Your task to perform on an android device: Play the last video I watched on Youtube Image 0: 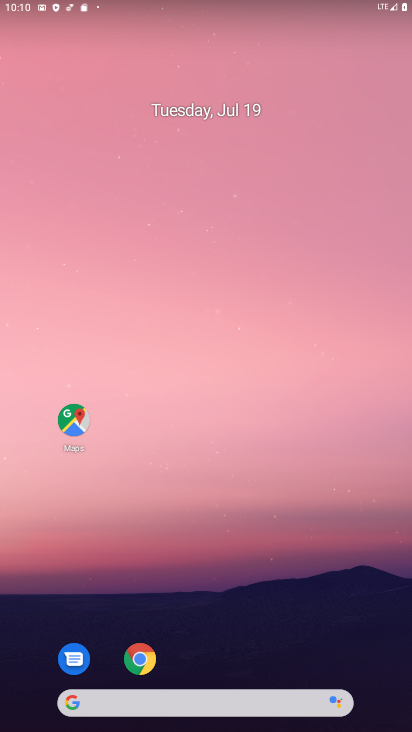
Step 0: drag from (231, 665) to (281, 284)
Your task to perform on an android device: Play the last video I watched on Youtube Image 1: 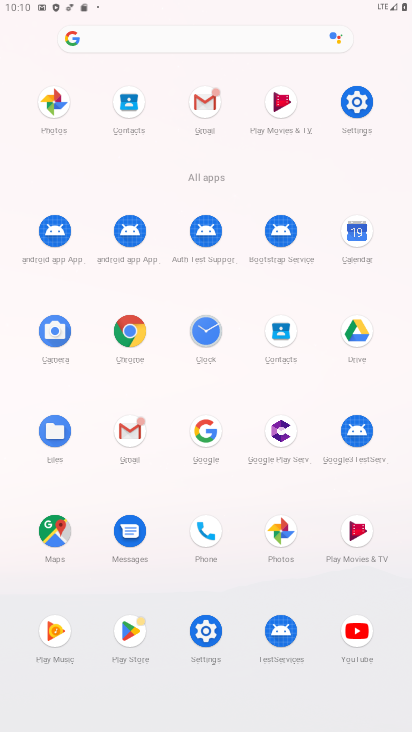
Step 1: click (351, 642)
Your task to perform on an android device: Play the last video I watched on Youtube Image 2: 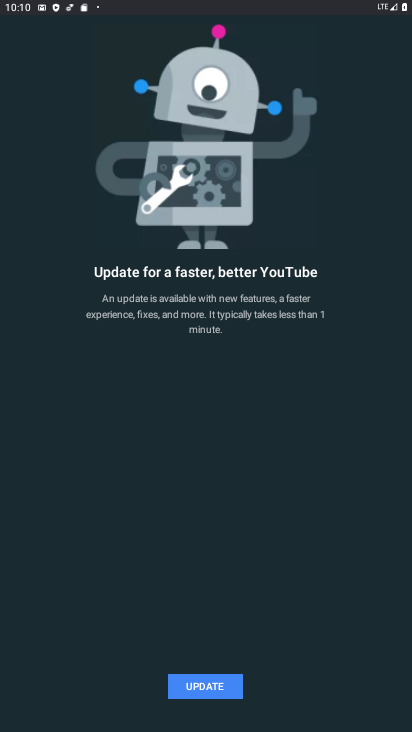
Step 2: task complete